Your task to perform on an android device: Open accessibility settings Image 0: 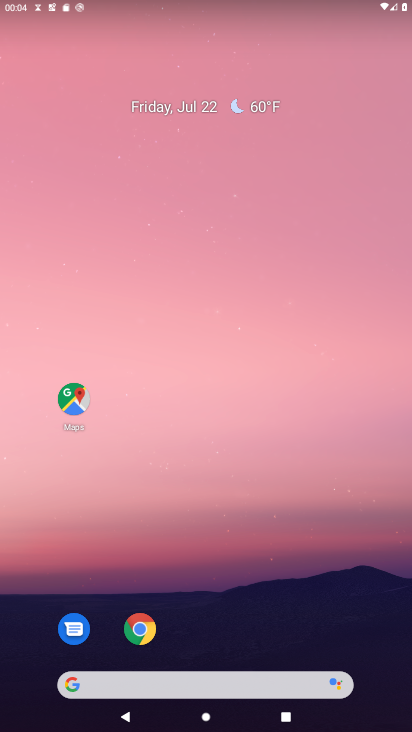
Step 0: drag from (216, 433) to (233, 201)
Your task to perform on an android device: Open accessibility settings Image 1: 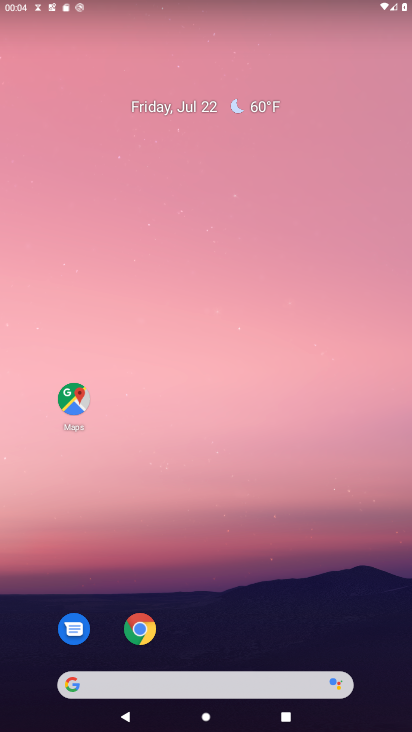
Step 1: drag from (206, 651) to (251, 325)
Your task to perform on an android device: Open accessibility settings Image 2: 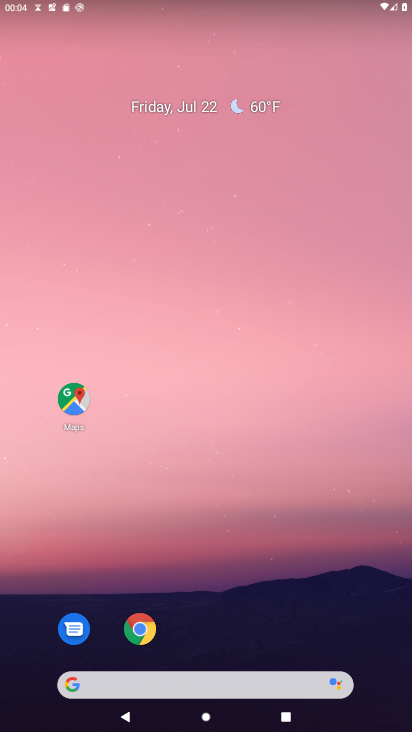
Step 2: drag from (237, 687) to (255, 181)
Your task to perform on an android device: Open accessibility settings Image 3: 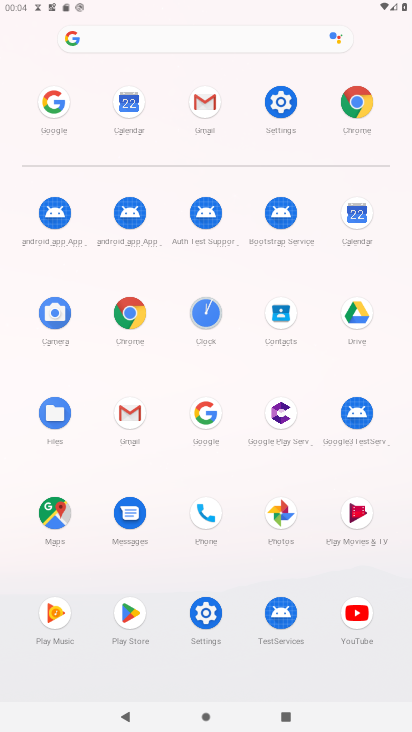
Step 3: click (277, 111)
Your task to perform on an android device: Open accessibility settings Image 4: 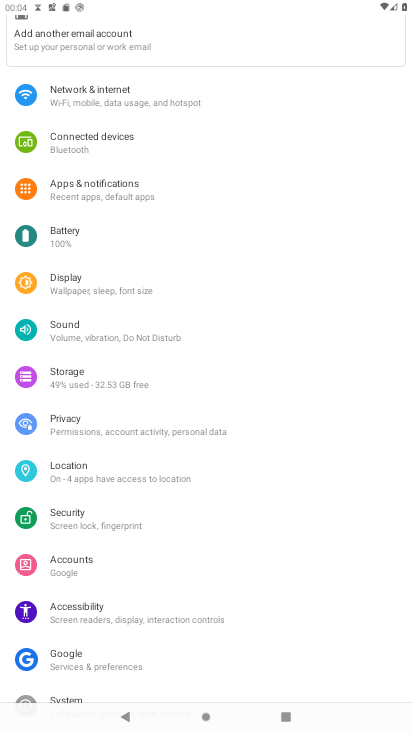
Step 4: click (103, 613)
Your task to perform on an android device: Open accessibility settings Image 5: 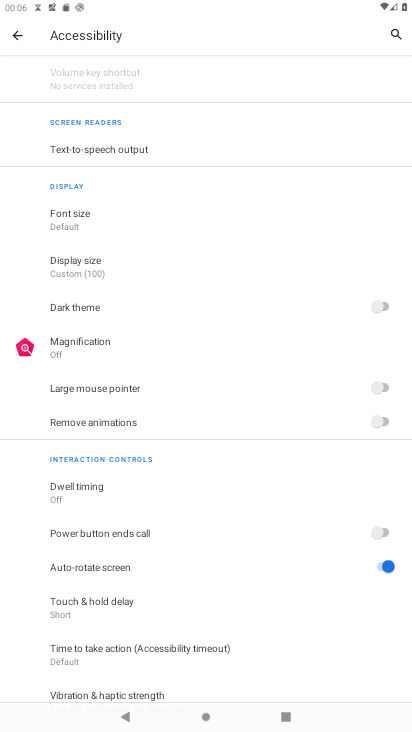
Step 5: task complete